Your task to perform on an android device: Go to calendar. Show me events next week Image 0: 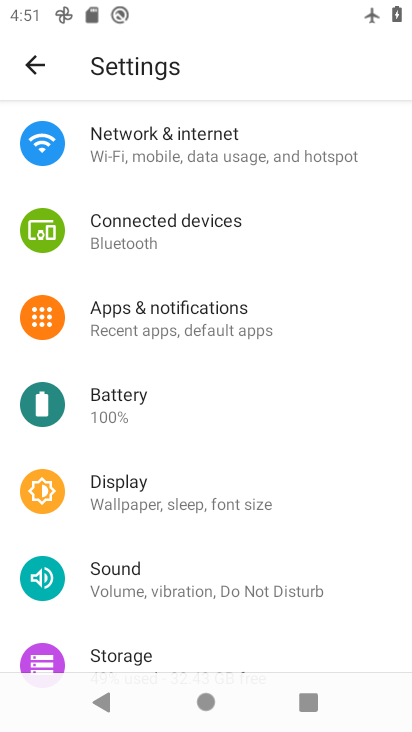
Step 0: press home button
Your task to perform on an android device: Go to calendar. Show me events next week Image 1: 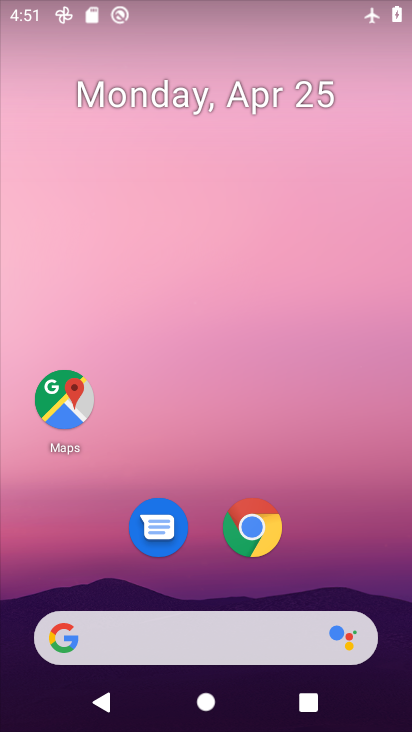
Step 1: drag from (344, 562) to (302, 39)
Your task to perform on an android device: Go to calendar. Show me events next week Image 2: 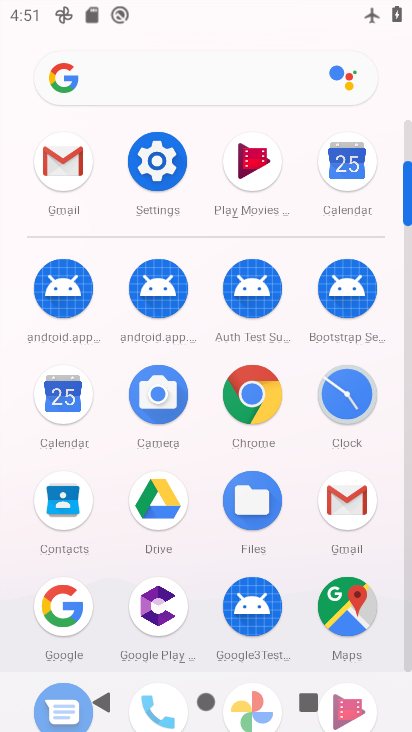
Step 2: click (408, 656)
Your task to perform on an android device: Go to calendar. Show me events next week Image 3: 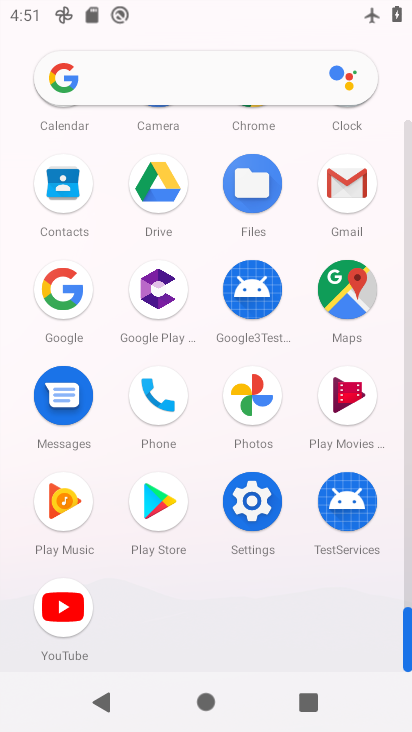
Step 3: click (408, 232)
Your task to perform on an android device: Go to calendar. Show me events next week Image 4: 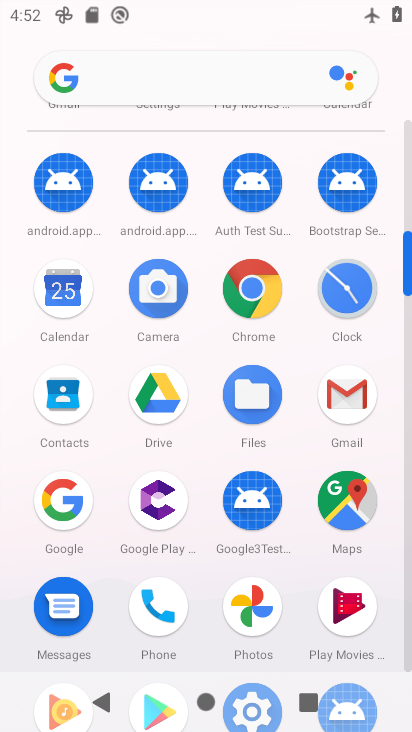
Step 4: click (62, 287)
Your task to perform on an android device: Go to calendar. Show me events next week Image 5: 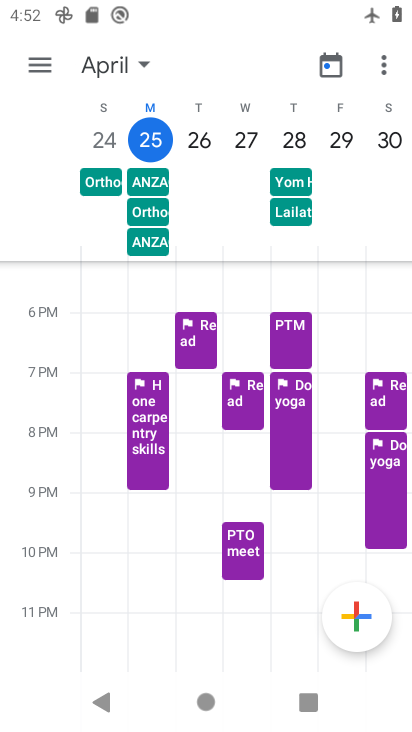
Step 5: click (140, 62)
Your task to perform on an android device: Go to calendar. Show me events next week Image 6: 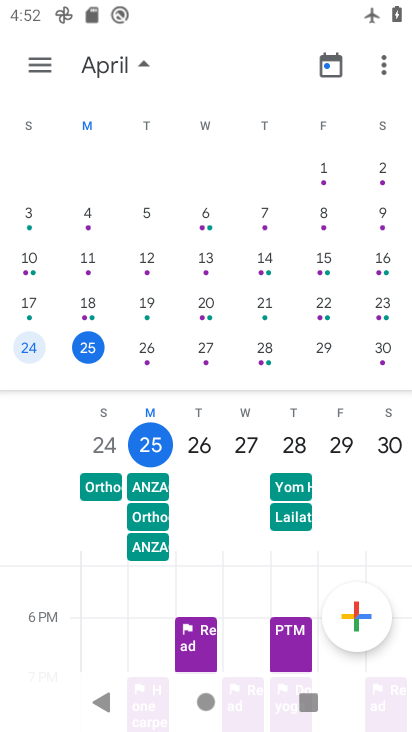
Step 6: drag from (382, 307) to (34, 267)
Your task to perform on an android device: Go to calendar. Show me events next week Image 7: 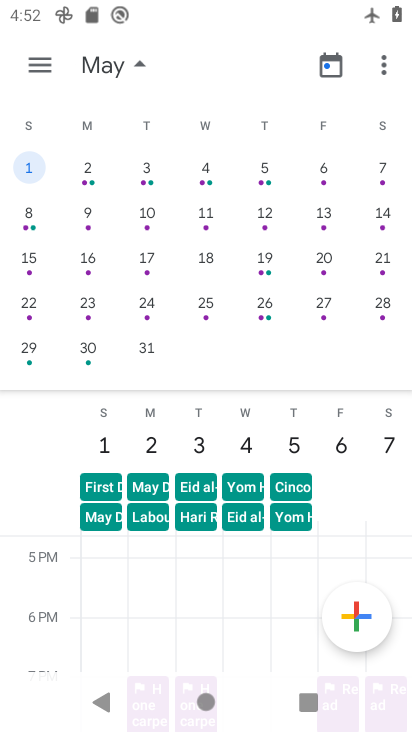
Step 7: drag from (240, 579) to (186, 210)
Your task to perform on an android device: Go to calendar. Show me events next week Image 8: 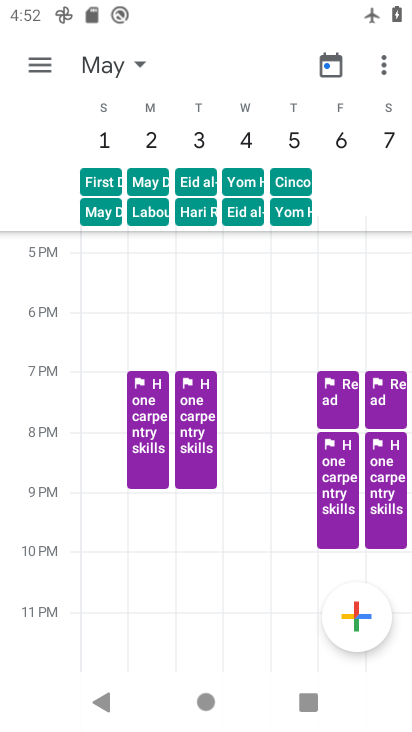
Step 8: click (227, 606)
Your task to perform on an android device: Go to calendar. Show me events next week Image 9: 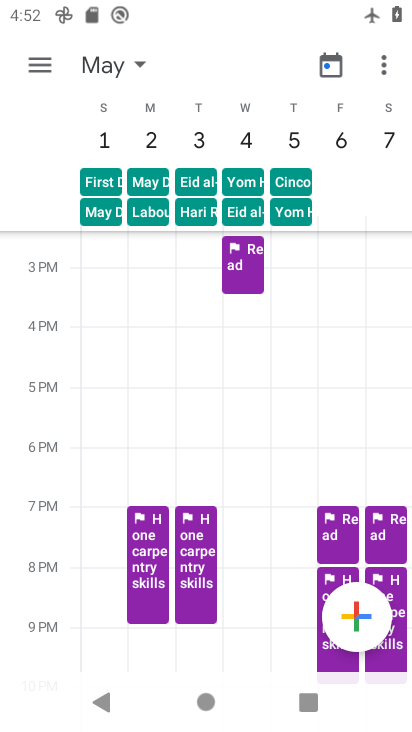
Step 9: task complete